Your task to perform on an android device: change notifications settings Image 0: 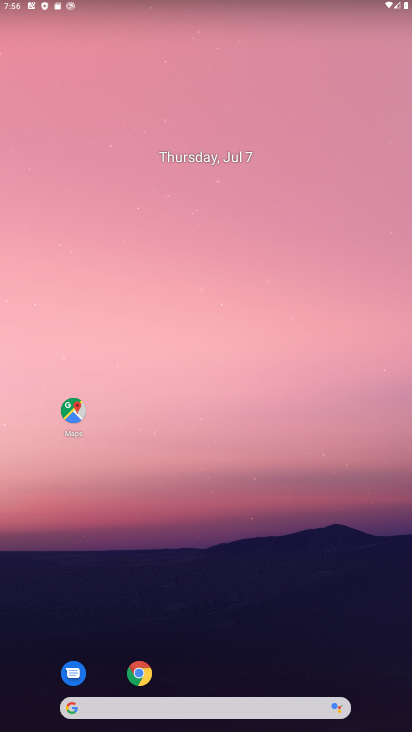
Step 0: drag from (192, 568) to (228, 74)
Your task to perform on an android device: change notifications settings Image 1: 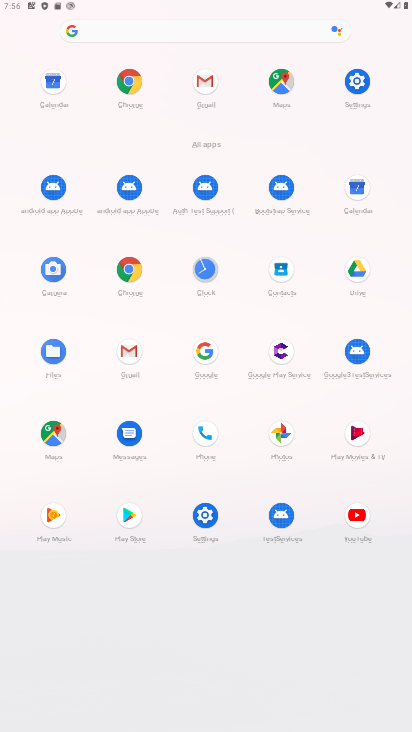
Step 1: click (356, 86)
Your task to perform on an android device: change notifications settings Image 2: 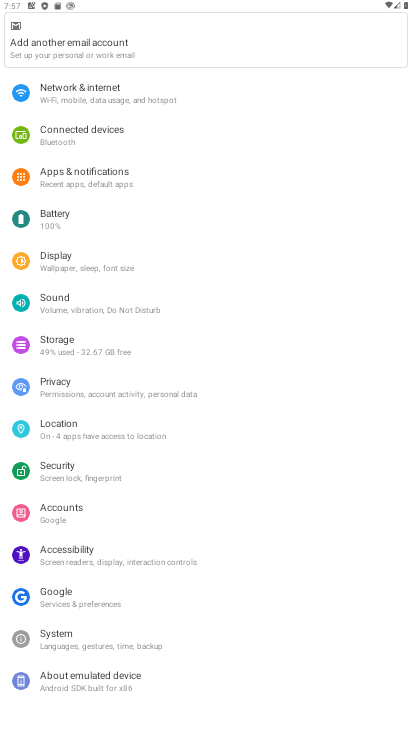
Step 2: click (86, 191)
Your task to perform on an android device: change notifications settings Image 3: 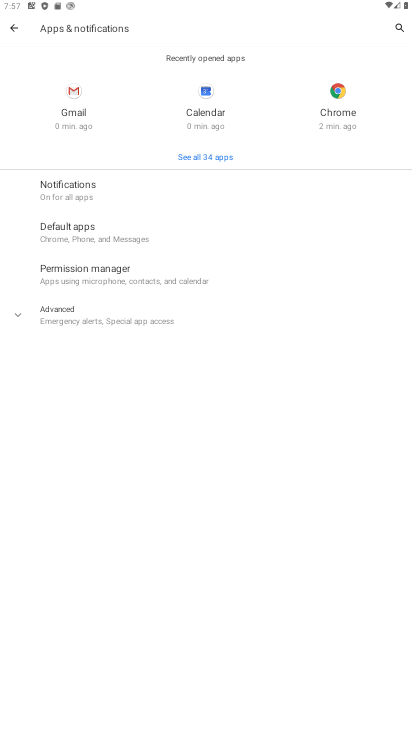
Step 3: click (86, 191)
Your task to perform on an android device: change notifications settings Image 4: 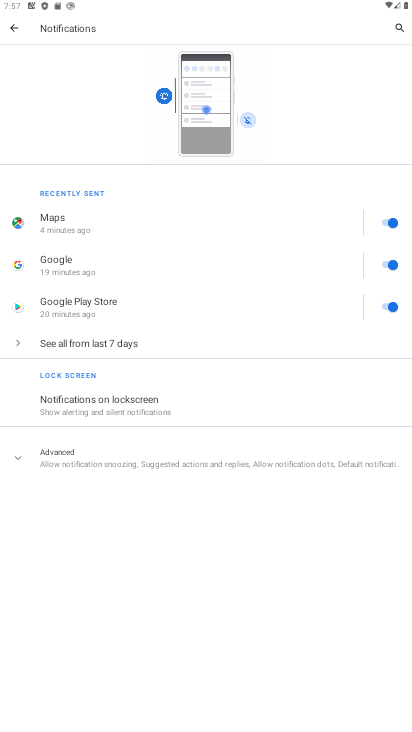
Step 4: click (109, 459)
Your task to perform on an android device: change notifications settings Image 5: 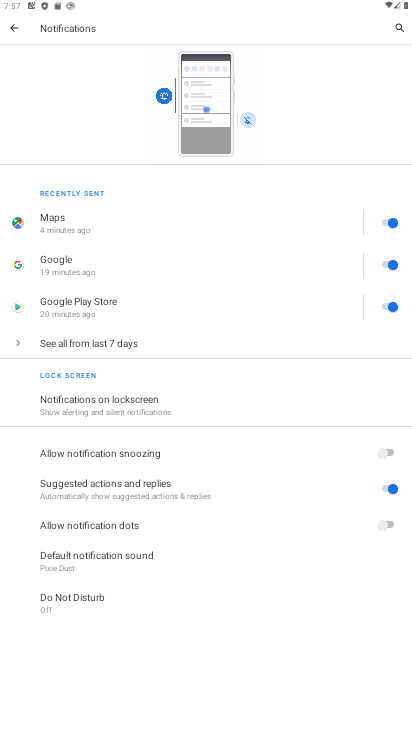
Step 5: click (152, 413)
Your task to perform on an android device: change notifications settings Image 6: 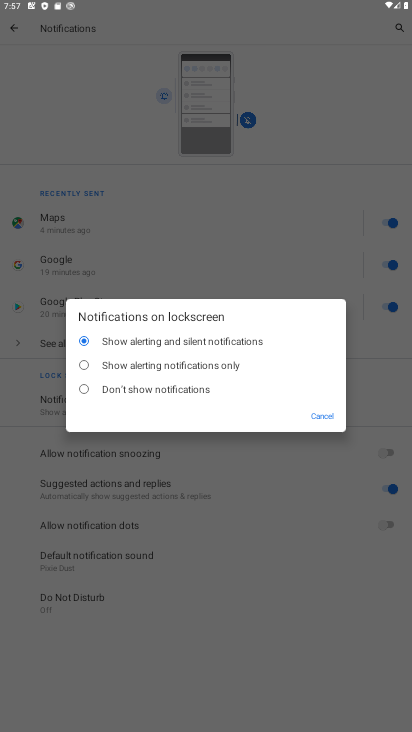
Step 6: click (82, 391)
Your task to perform on an android device: change notifications settings Image 7: 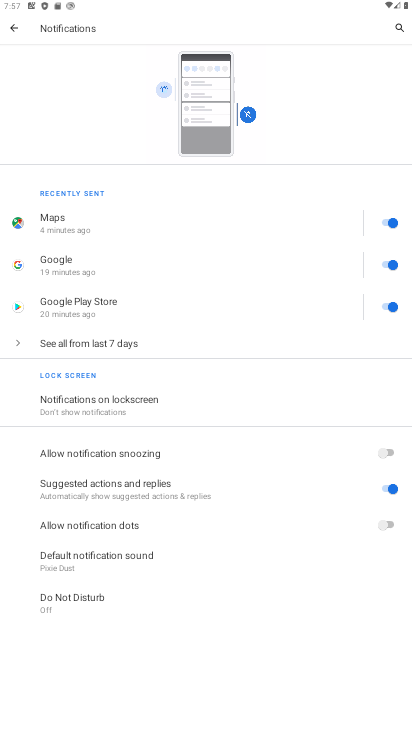
Step 7: task complete